Your task to perform on an android device: change the clock display to digital Image 0: 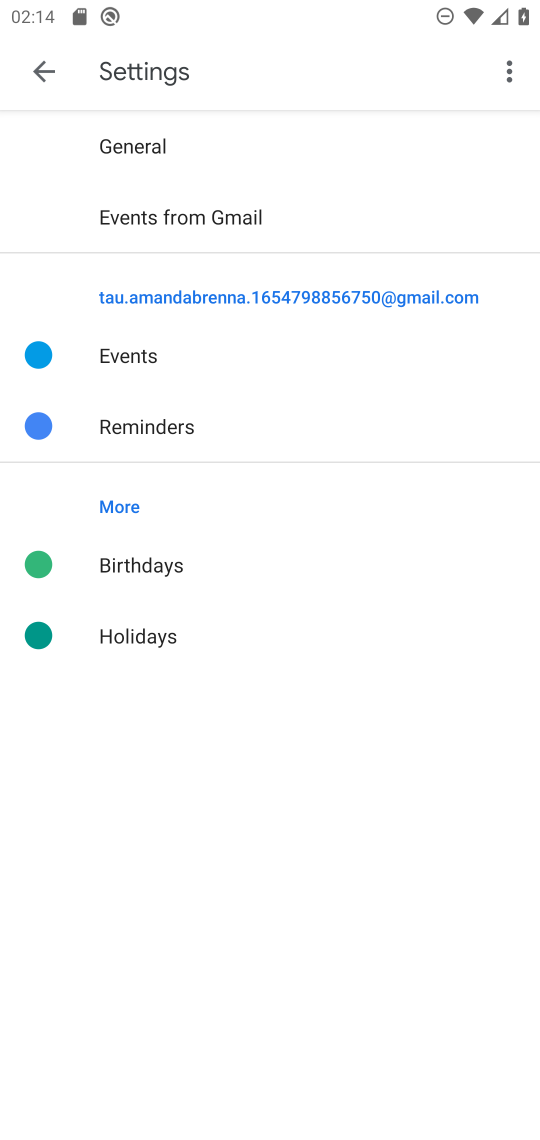
Step 0: press home button
Your task to perform on an android device: change the clock display to digital Image 1: 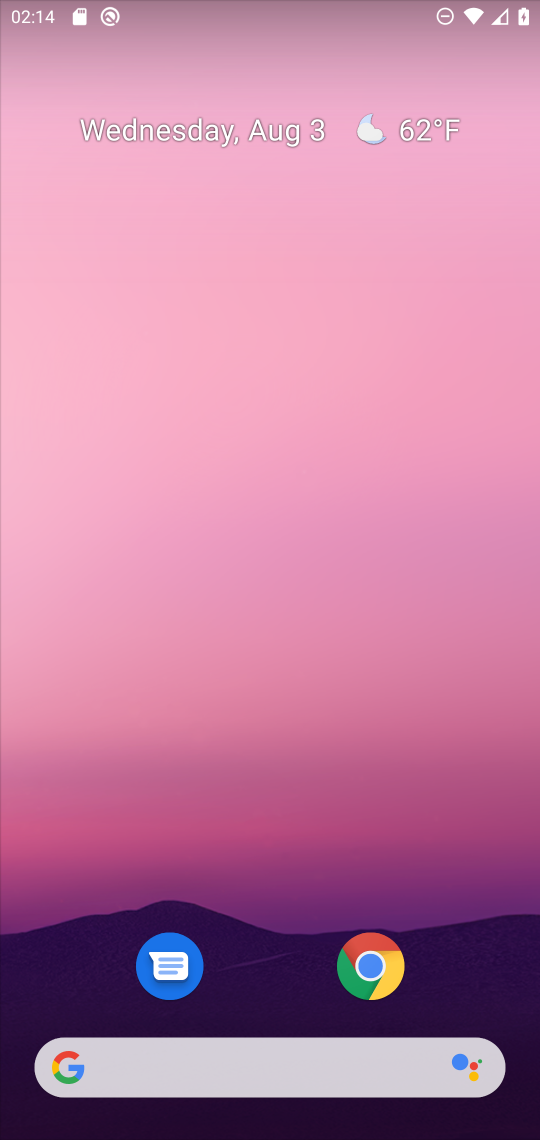
Step 1: drag from (269, 973) to (299, 439)
Your task to perform on an android device: change the clock display to digital Image 2: 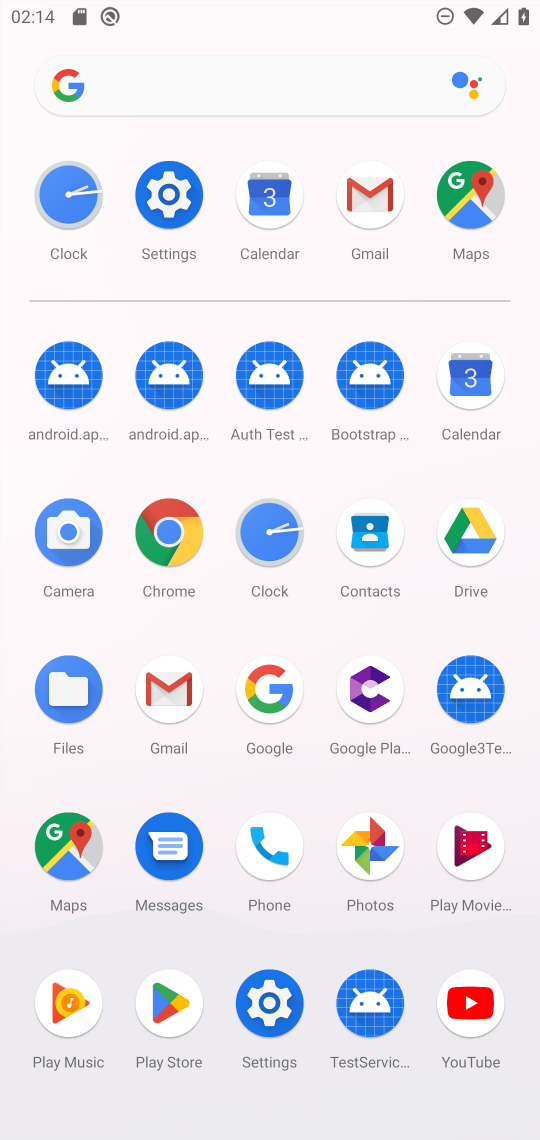
Step 2: click (252, 550)
Your task to perform on an android device: change the clock display to digital Image 3: 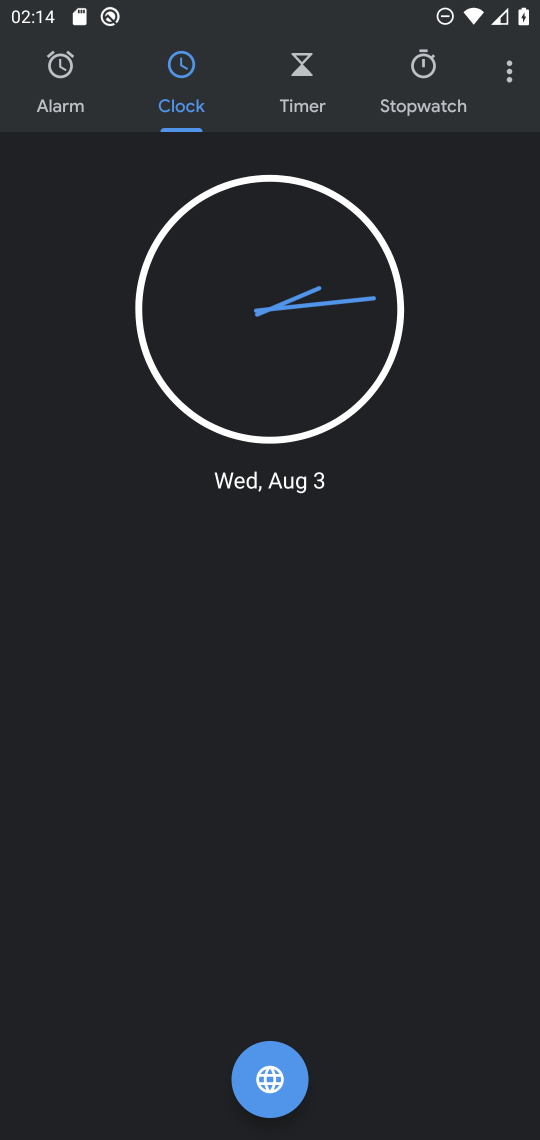
Step 3: click (509, 72)
Your task to perform on an android device: change the clock display to digital Image 4: 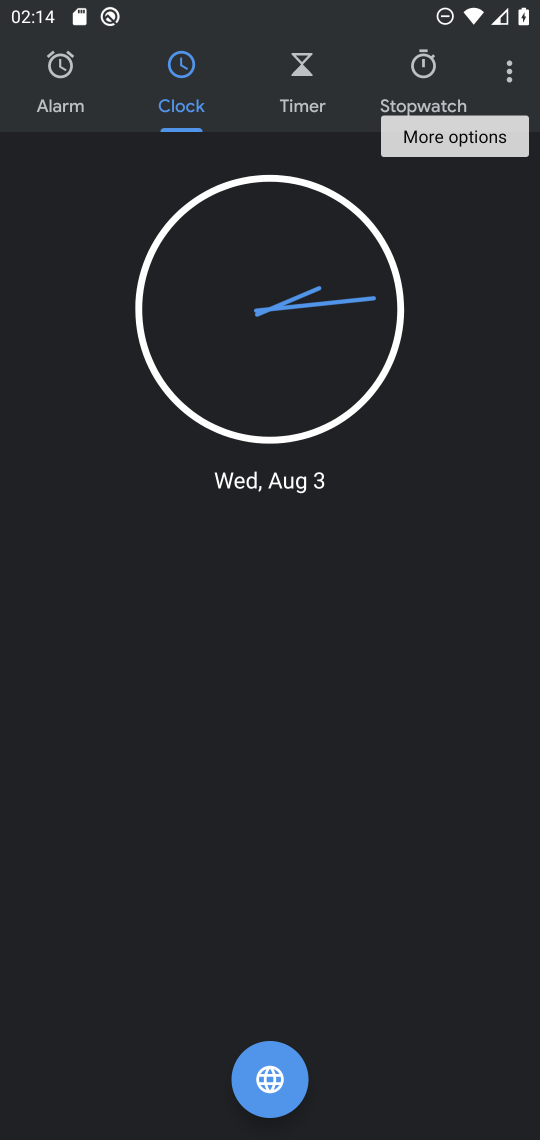
Step 4: click (510, 62)
Your task to perform on an android device: change the clock display to digital Image 5: 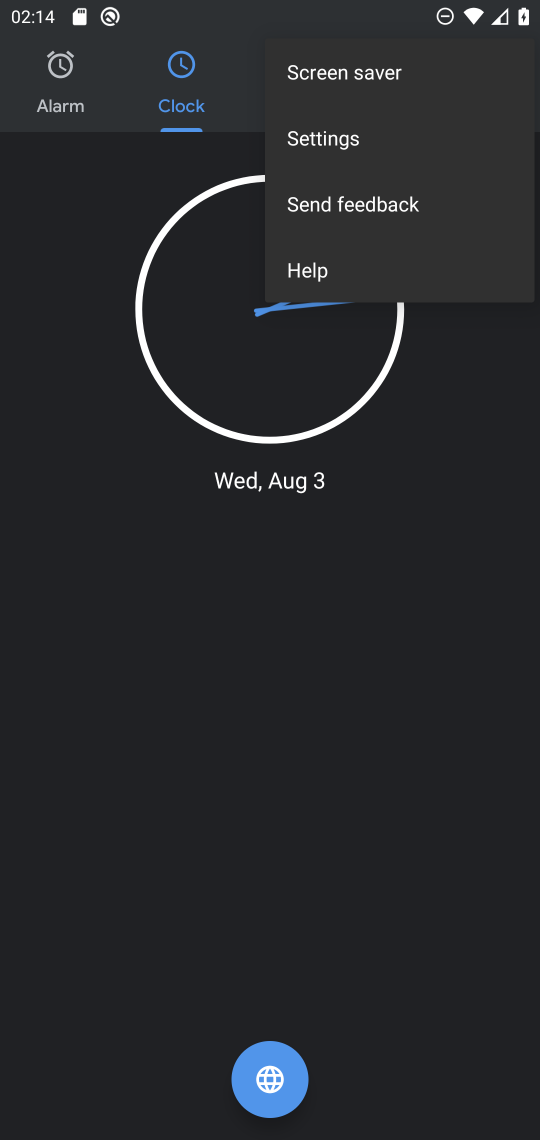
Step 5: click (389, 145)
Your task to perform on an android device: change the clock display to digital Image 6: 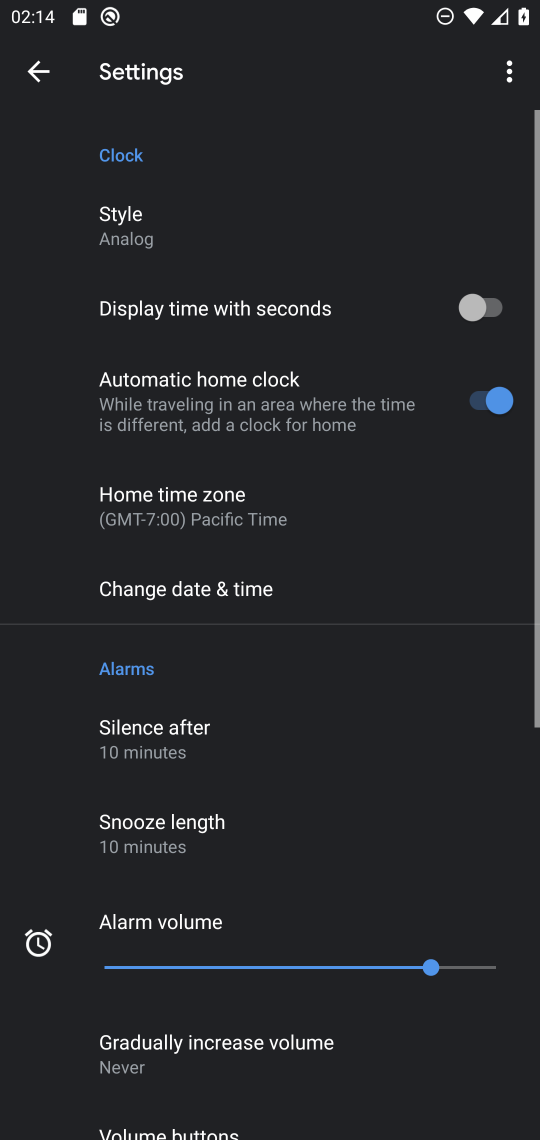
Step 6: click (146, 208)
Your task to perform on an android device: change the clock display to digital Image 7: 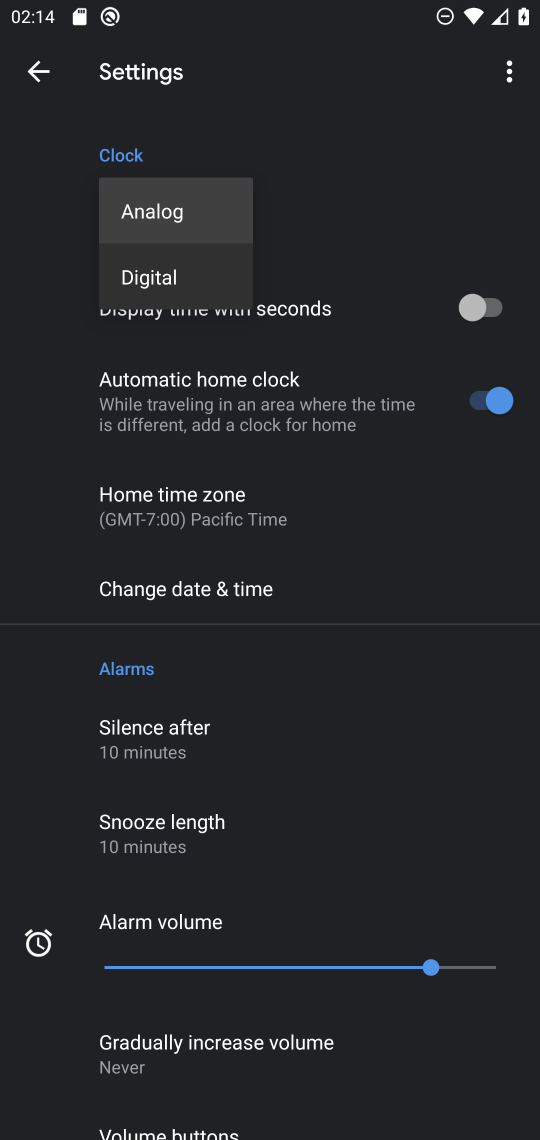
Step 7: click (170, 282)
Your task to perform on an android device: change the clock display to digital Image 8: 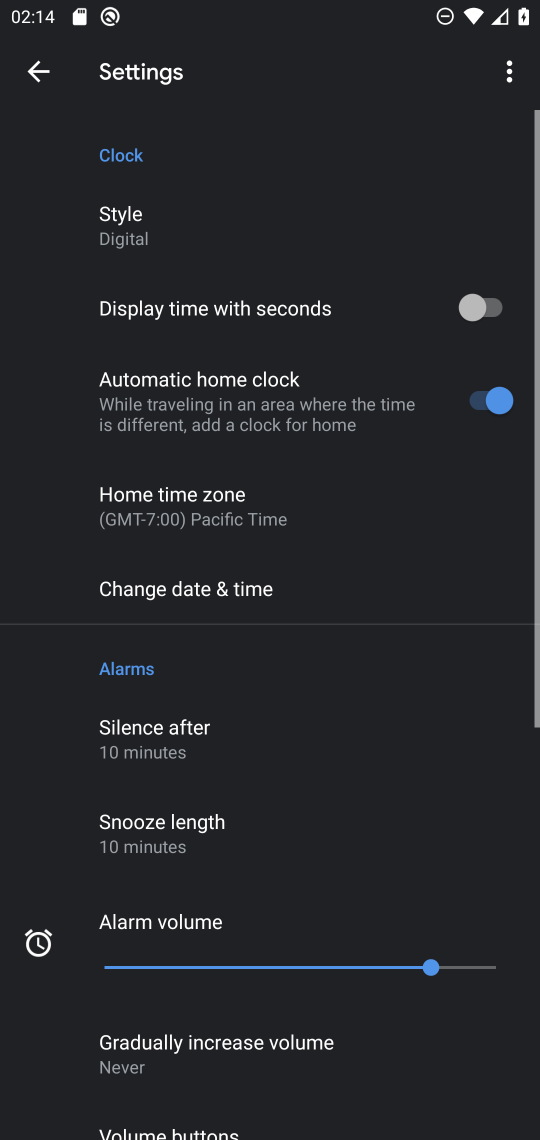
Step 8: task complete